Your task to perform on an android device: see creations saved in the google photos Image 0: 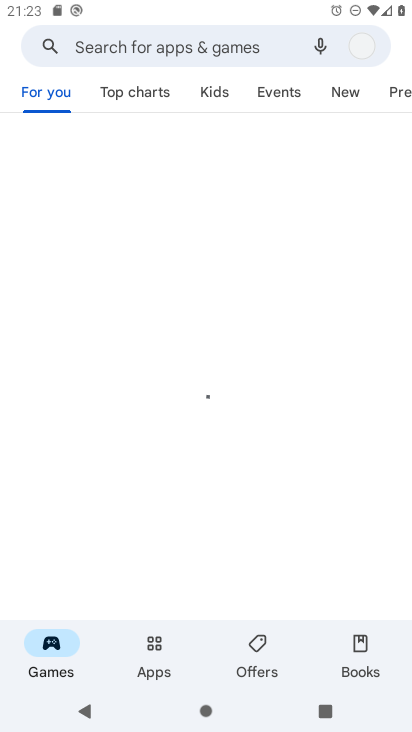
Step 0: press home button
Your task to perform on an android device: see creations saved in the google photos Image 1: 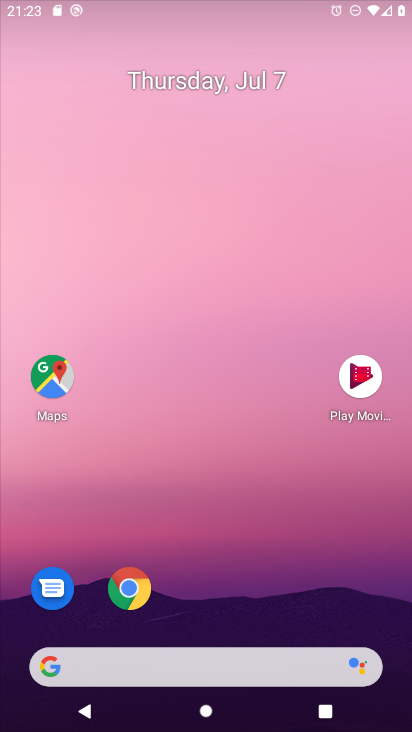
Step 1: drag from (221, 615) to (197, 349)
Your task to perform on an android device: see creations saved in the google photos Image 2: 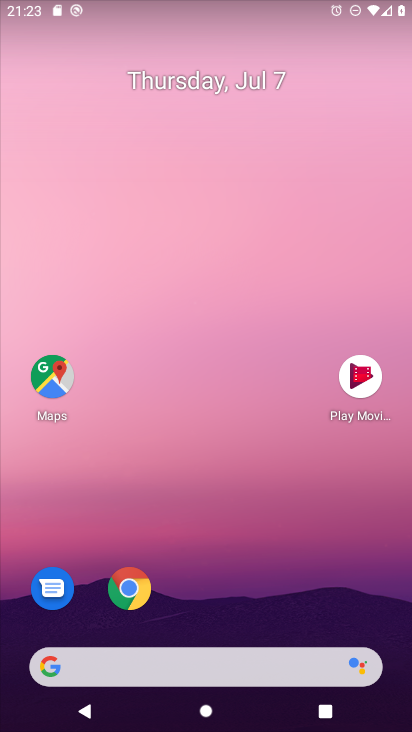
Step 2: drag from (214, 616) to (231, 307)
Your task to perform on an android device: see creations saved in the google photos Image 3: 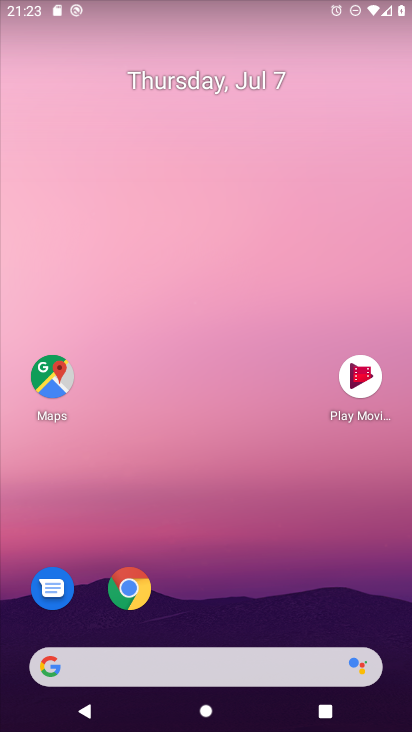
Step 3: drag from (221, 609) to (225, 194)
Your task to perform on an android device: see creations saved in the google photos Image 4: 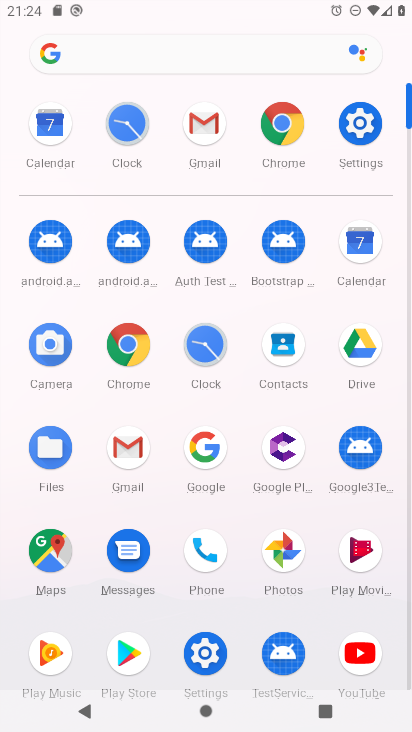
Step 4: click (283, 552)
Your task to perform on an android device: see creations saved in the google photos Image 5: 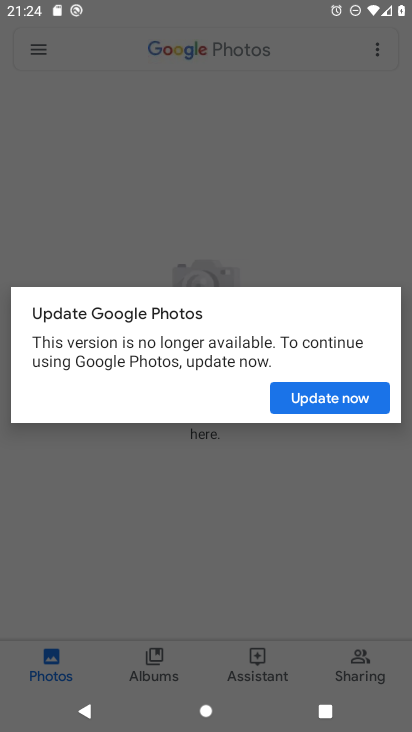
Step 5: task complete